Your task to perform on an android device: toggle notifications settings in the gmail app Image 0: 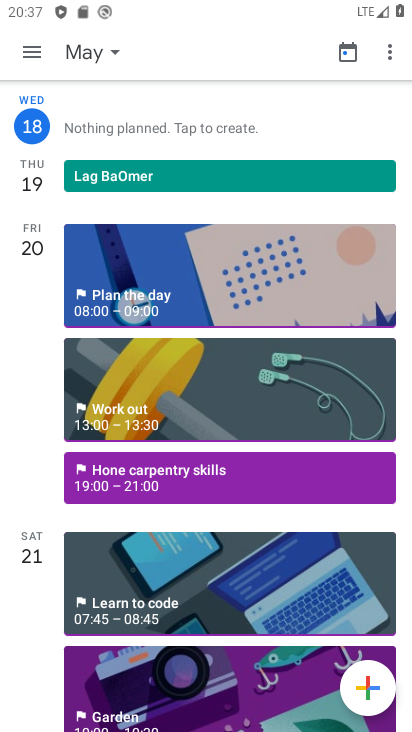
Step 0: press home button
Your task to perform on an android device: toggle notifications settings in the gmail app Image 1: 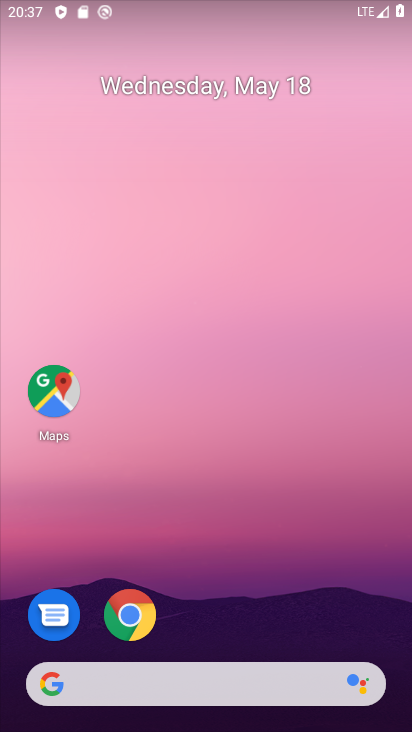
Step 1: drag from (184, 676) to (196, 124)
Your task to perform on an android device: toggle notifications settings in the gmail app Image 2: 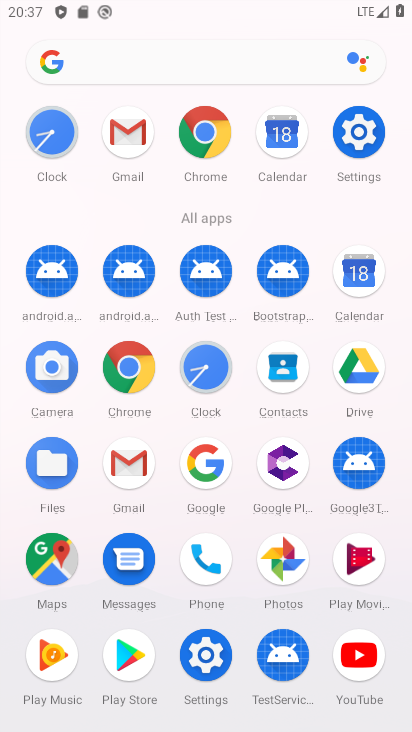
Step 2: click (135, 463)
Your task to perform on an android device: toggle notifications settings in the gmail app Image 3: 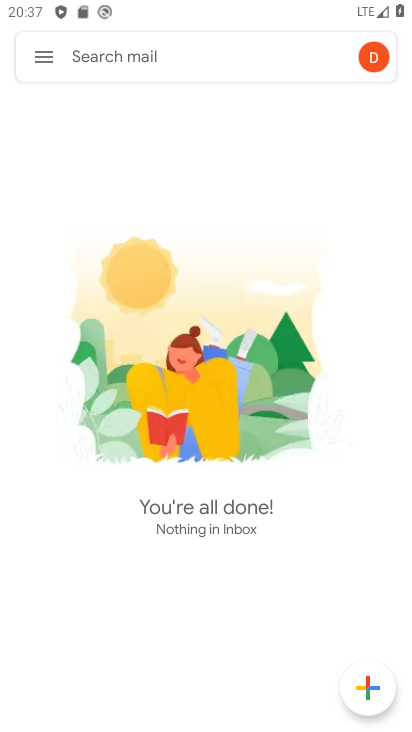
Step 3: click (45, 64)
Your task to perform on an android device: toggle notifications settings in the gmail app Image 4: 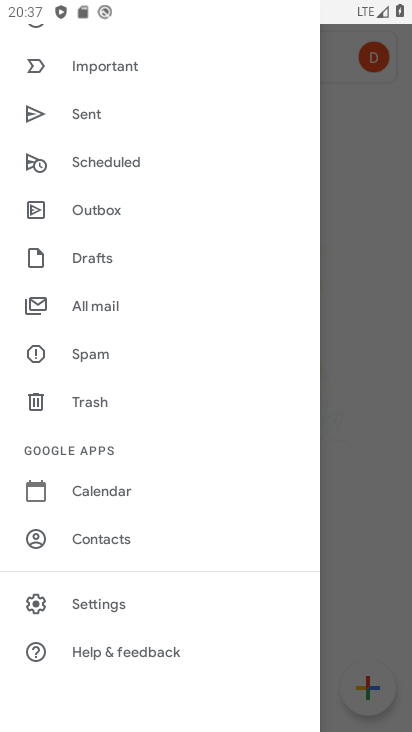
Step 4: click (103, 600)
Your task to perform on an android device: toggle notifications settings in the gmail app Image 5: 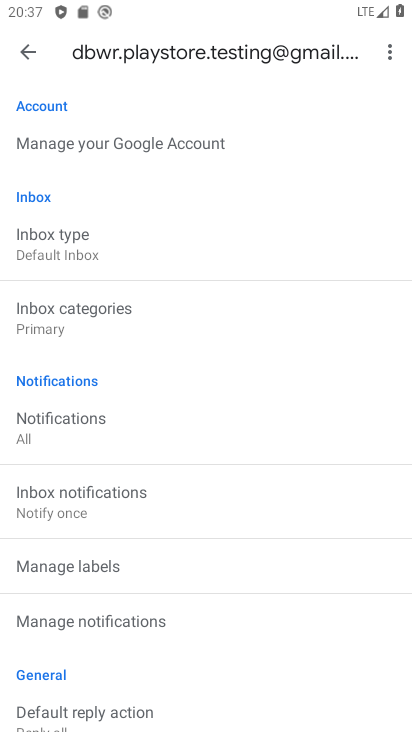
Step 5: click (90, 619)
Your task to perform on an android device: toggle notifications settings in the gmail app Image 6: 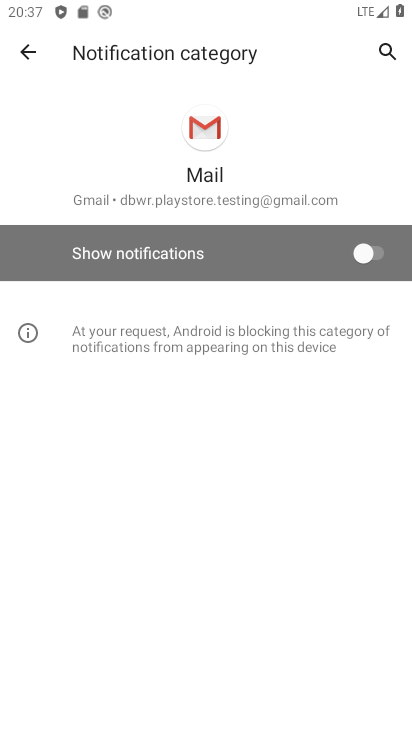
Step 6: click (372, 247)
Your task to perform on an android device: toggle notifications settings in the gmail app Image 7: 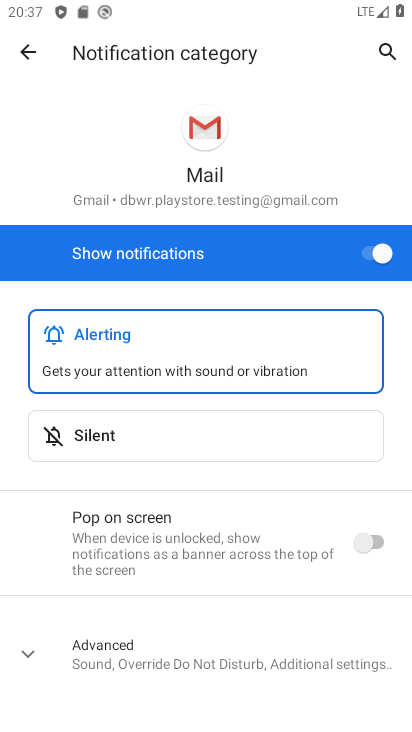
Step 7: task complete